Your task to perform on an android device: Open the phone app and click the voicemail tab. Image 0: 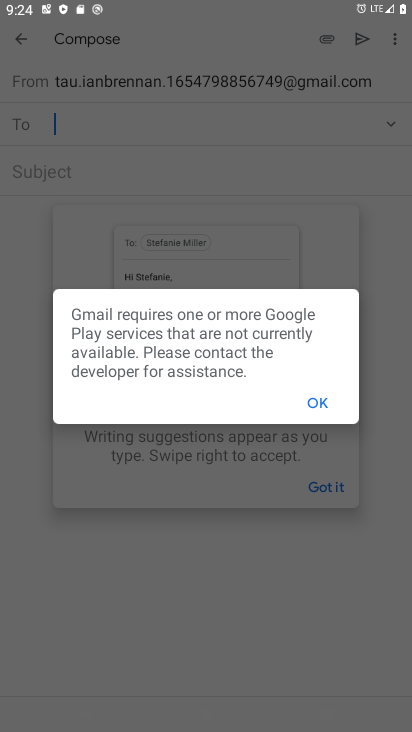
Step 0: press home button
Your task to perform on an android device: Open the phone app and click the voicemail tab. Image 1: 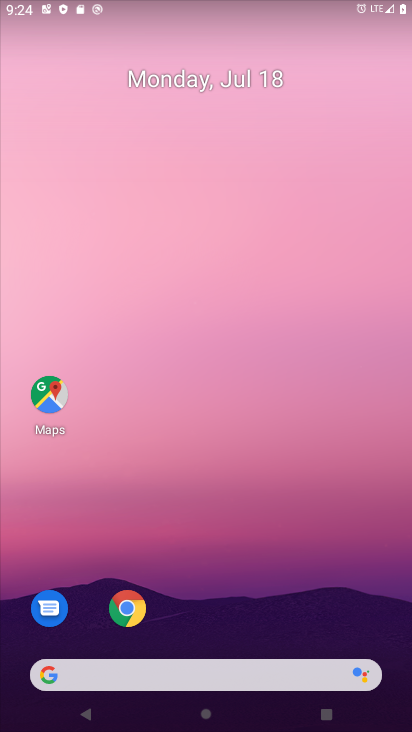
Step 1: drag from (257, 725) to (251, 94)
Your task to perform on an android device: Open the phone app and click the voicemail tab. Image 2: 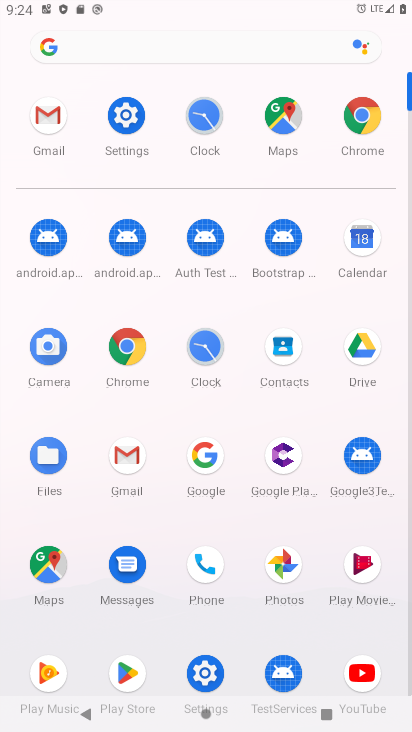
Step 2: click (205, 560)
Your task to perform on an android device: Open the phone app and click the voicemail tab. Image 3: 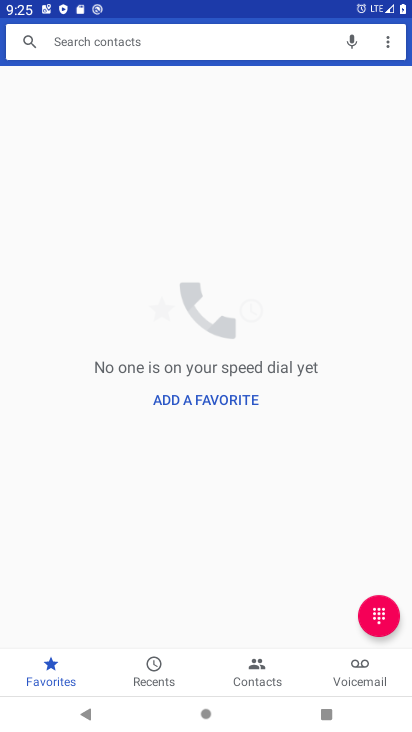
Step 3: click (346, 665)
Your task to perform on an android device: Open the phone app and click the voicemail tab. Image 4: 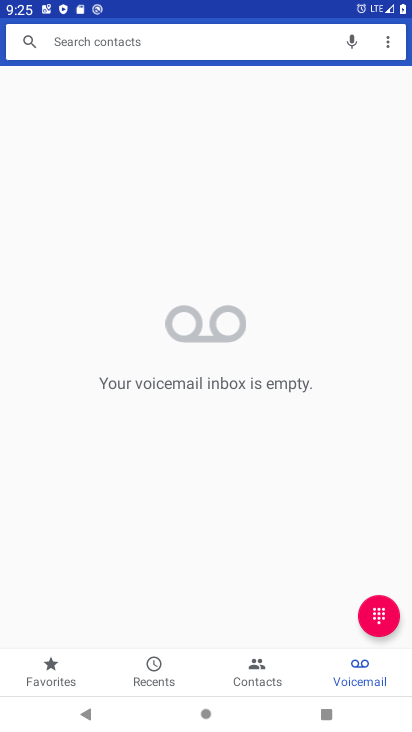
Step 4: task complete